Your task to perform on an android device: Show me popular games on the Play Store Image 0: 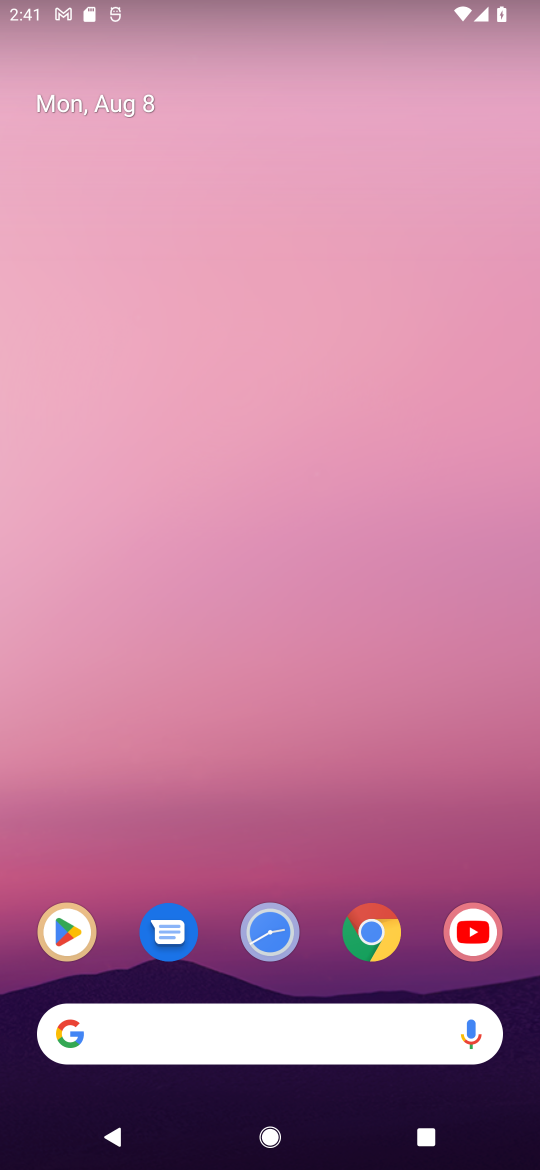
Step 0: drag from (184, 871) to (262, 0)
Your task to perform on an android device: Show me popular games on the Play Store Image 1: 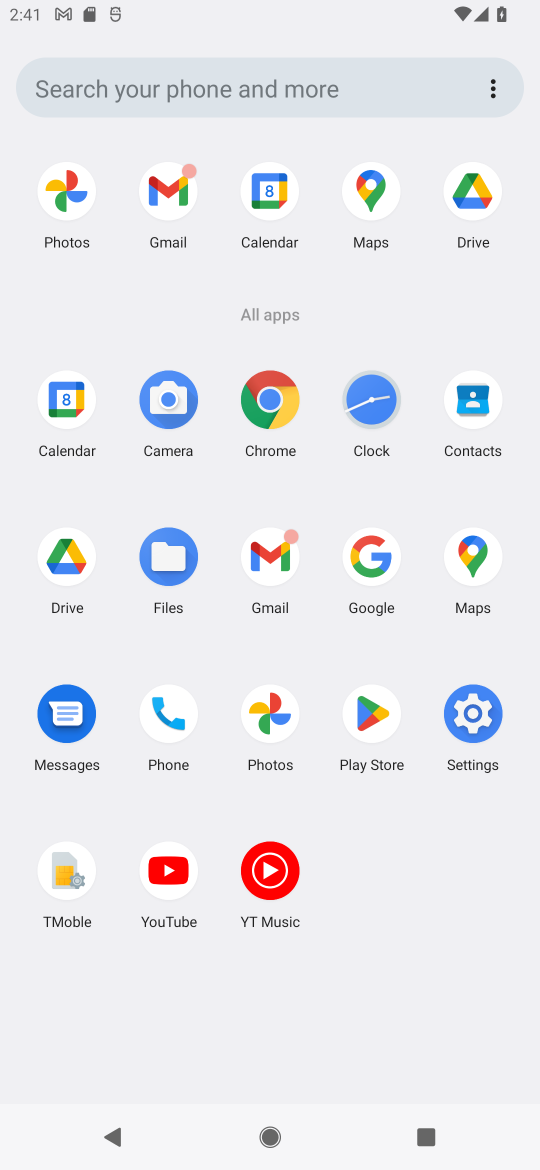
Step 1: click (369, 724)
Your task to perform on an android device: Show me popular games on the Play Store Image 2: 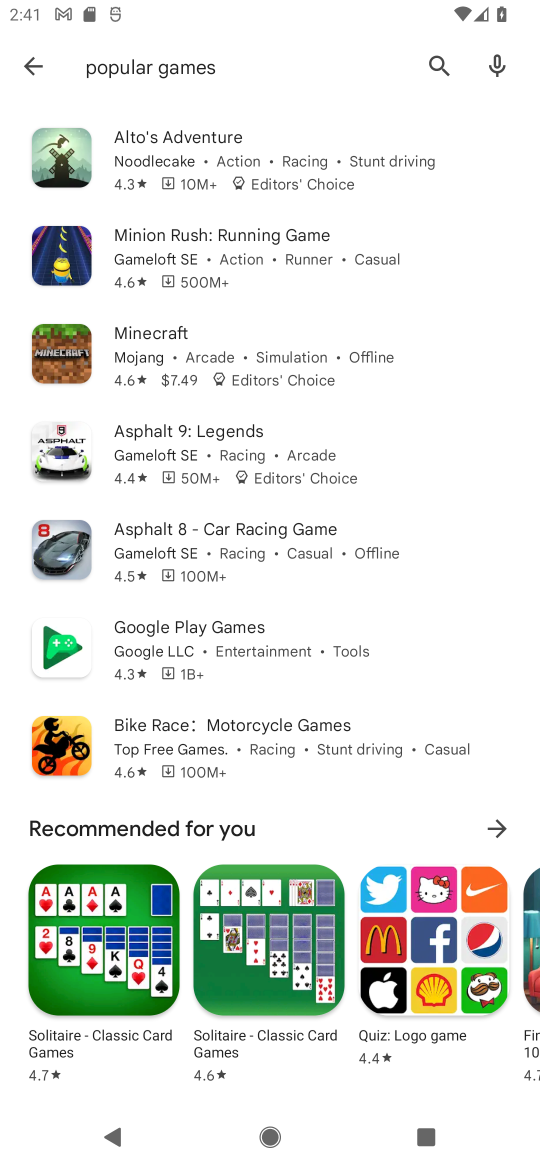
Step 2: task complete